Your task to perform on an android device: Open location settings Image 0: 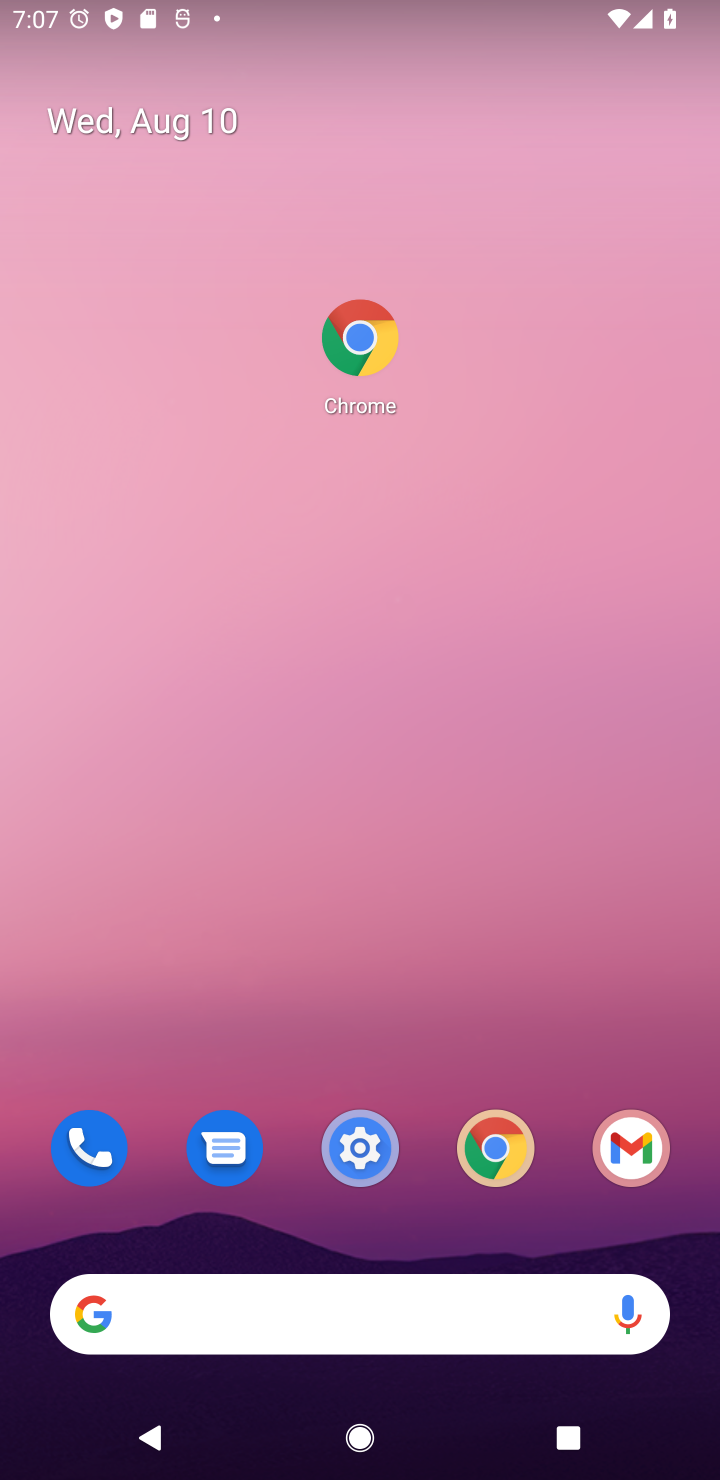
Step 0: click (359, 1163)
Your task to perform on an android device: Open location settings Image 1: 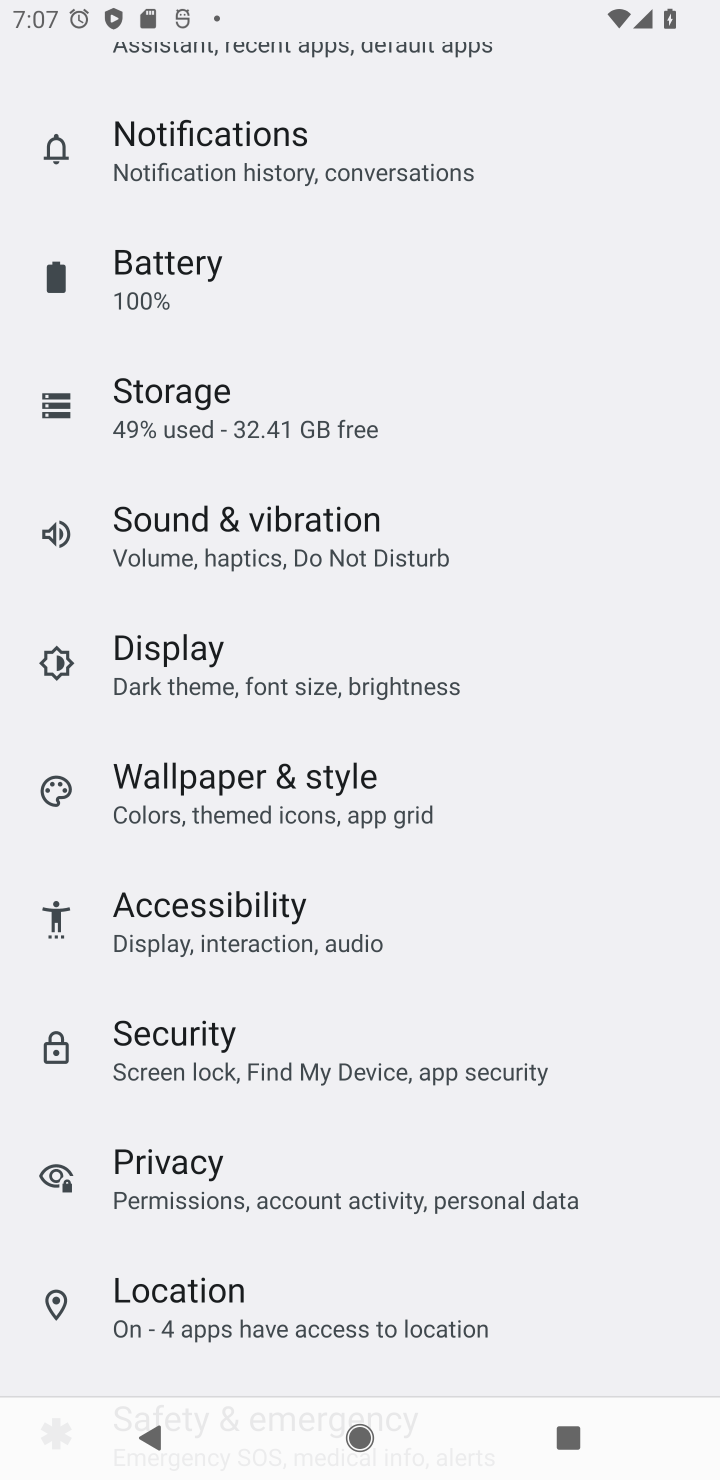
Step 1: click (218, 1301)
Your task to perform on an android device: Open location settings Image 2: 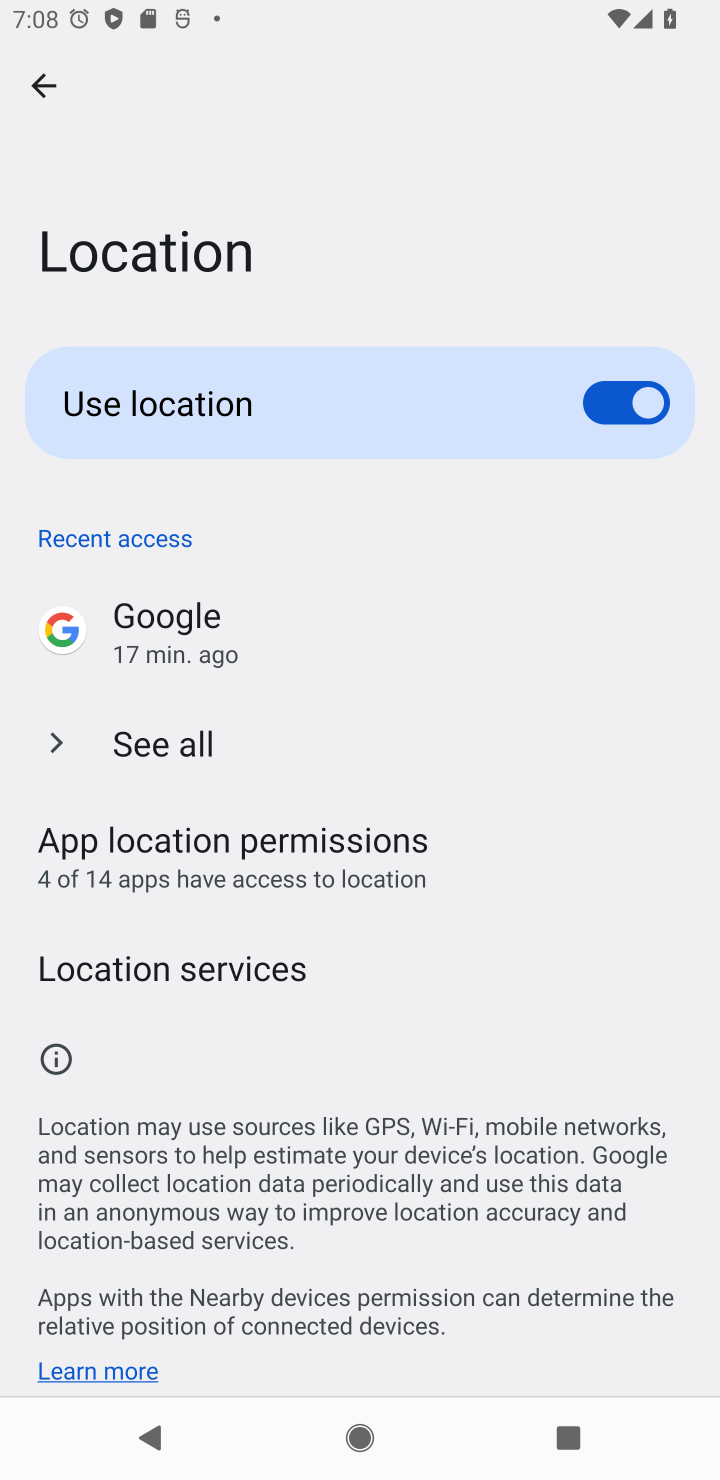
Step 2: task complete